Your task to perform on an android device: move an email to a new category in the gmail app Image 0: 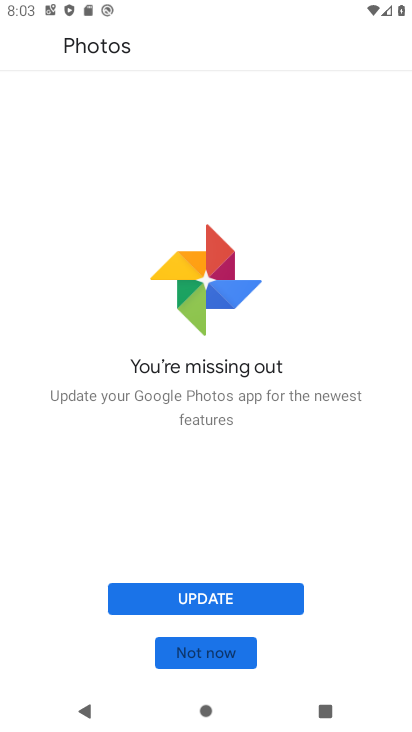
Step 0: press home button
Your task to perform on an android device: move an email to a new category in the gmail app Image 1: 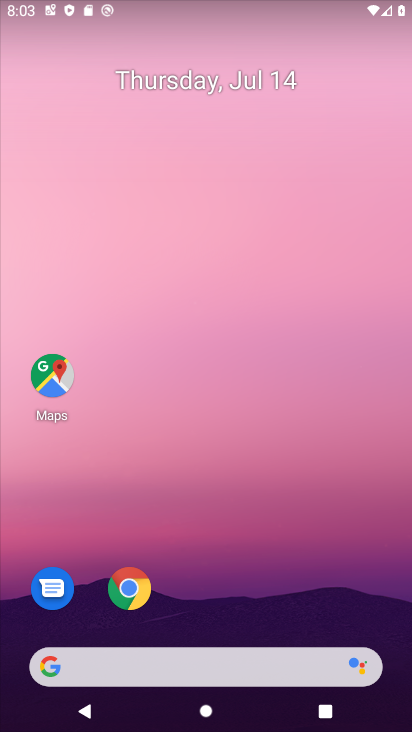
Step 1: drag from (350, 580) to (319, 140)
Your task to perform on an android device: move an email to a new category in the gmail app Image 2: 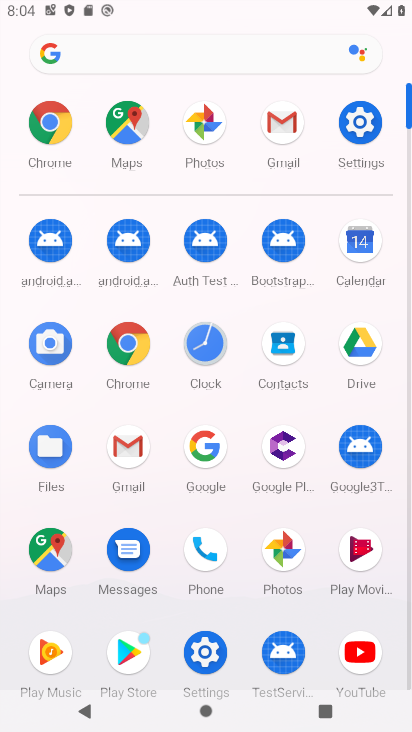
Step 2: click (285, 121)
Your task to perform on an android device: move an email to a new category in the gmail app Image 3: 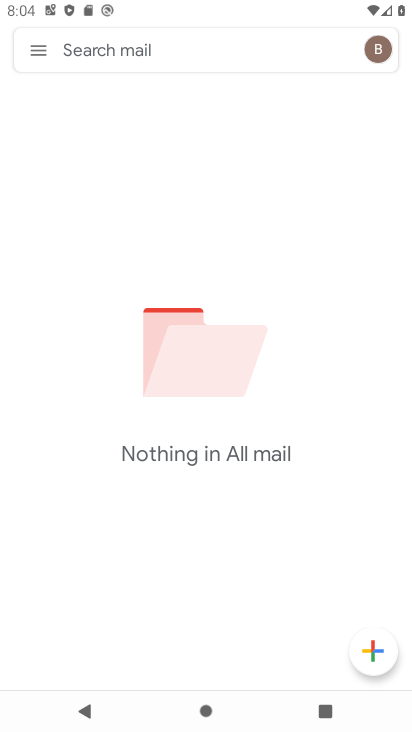
Step 3: click (49, 49)
Your task to perform on an android device: move an email to a new category in the gmail app Image 4: 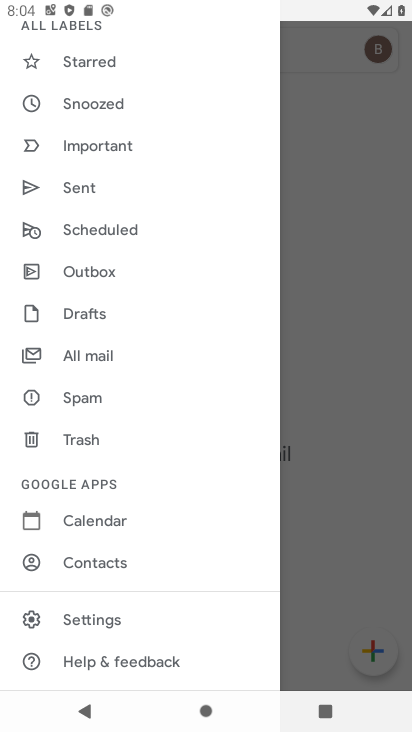
Step 4: click (367, 262)
Your task to perform on an android device: move an email to a new category in the gmail app Image 5: 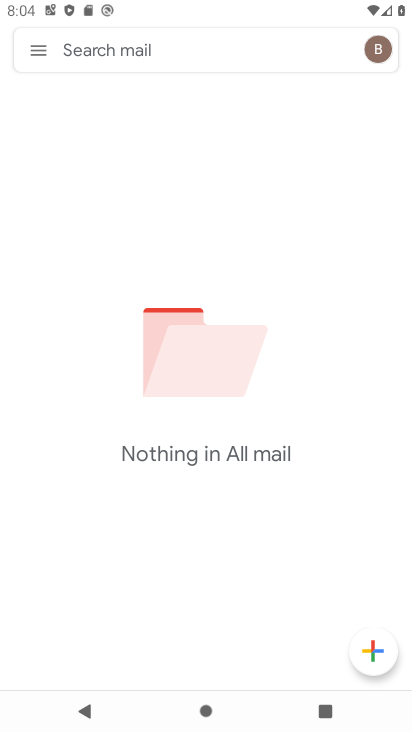
Step 5: task complete